Your task to perform on an android device: Open Yahoo.com Image 0: 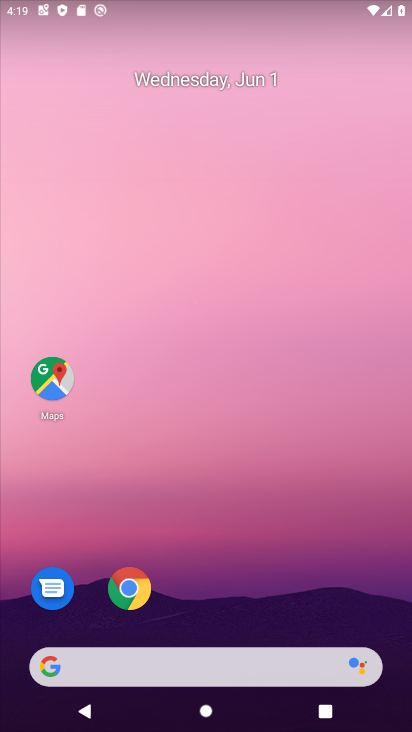
Step 0: click (138, 595)
Your task to perform on an android device: Open Yahoo.com Image 1: 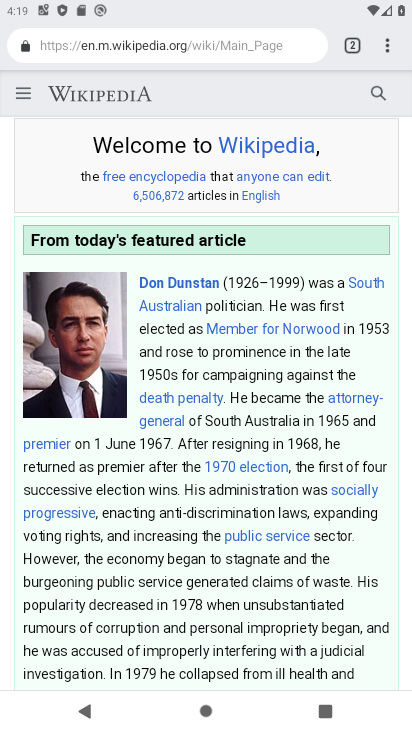
Step 1: click (201, 52)
Your task to perform on an android device: Open Yahoo.com Image 2: 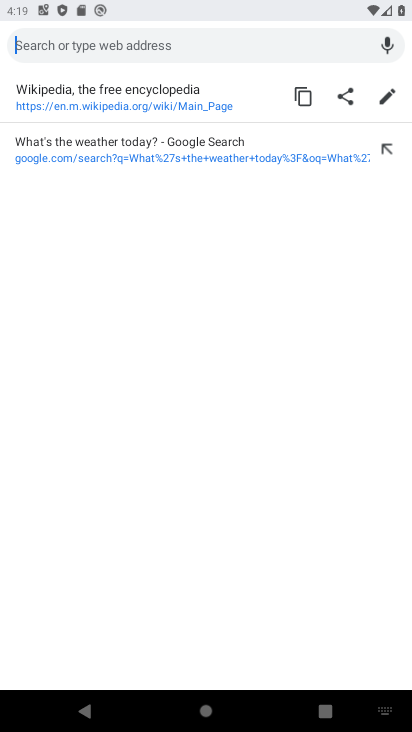
Step 2: type "yahoo.com"
Your task to perform on an android device: Open Yahoo.com Image 3: 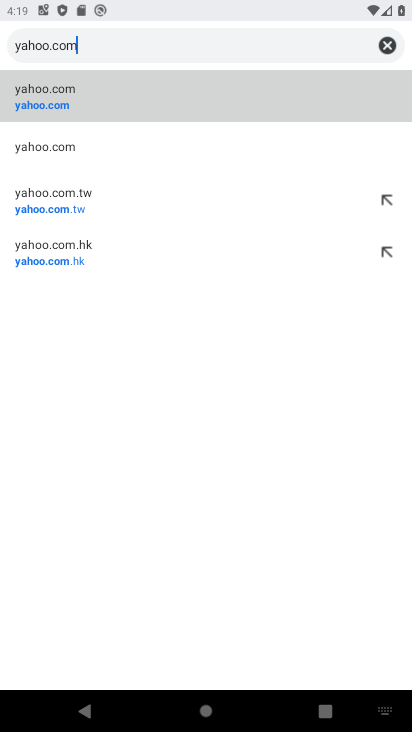
Step 3: click (53, 101)
Your task to perform on an android device: Open Yahoo.com Image 4: 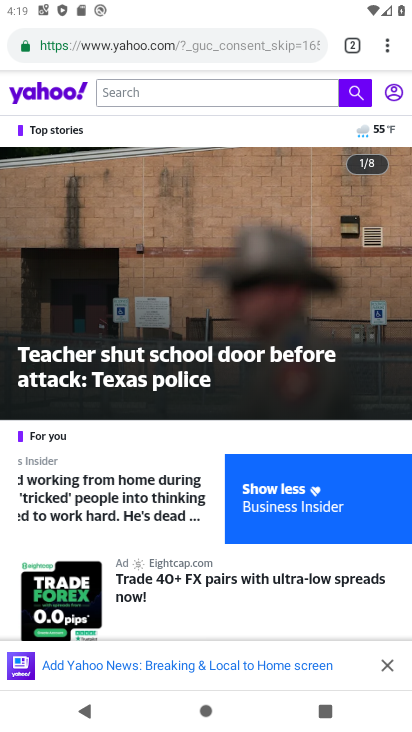
Step 4: task complete